Your task to perform on an android device: Open the phone app and click the voicemail tab. Image 0: 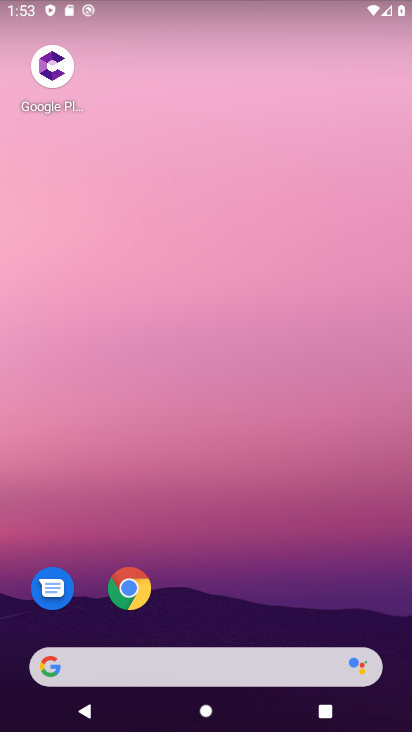
Step 0: drag from (176, 540) to (170, 1)
Your task to perform on an android device: Open the phone app and click the voicemail tab. Image 1: 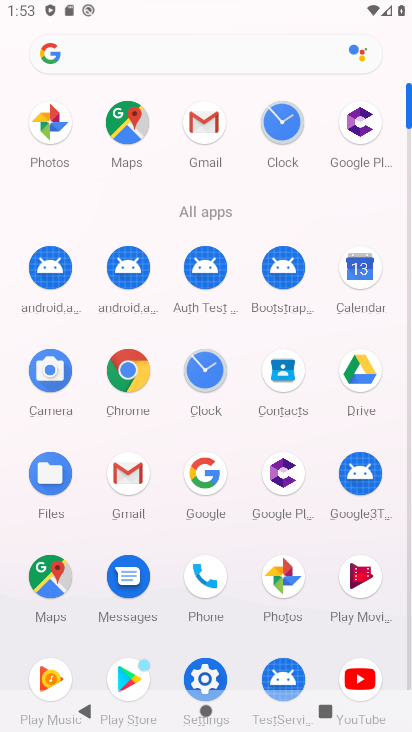
Step 1: click (196, 577)
Your task to perform on an android device: Open the phone app and click the voicemail tab. Image 2: 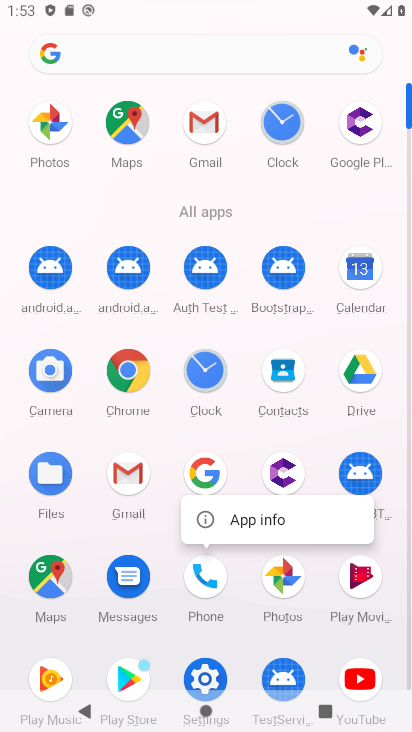
Step 2: click (246, 524)
Your task to perform on an android device: Open the phone app and click the voicemail tab. Image 3: 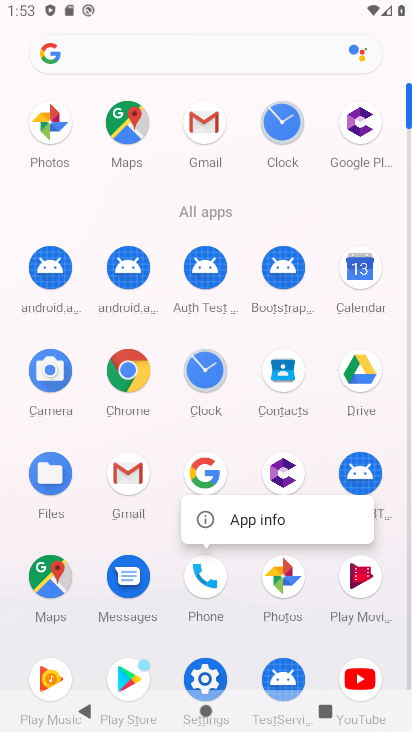
Step 3: click (246, 524)
Your task to perform on an android device: Open the phone app and click the voicemail tab. Image 4: 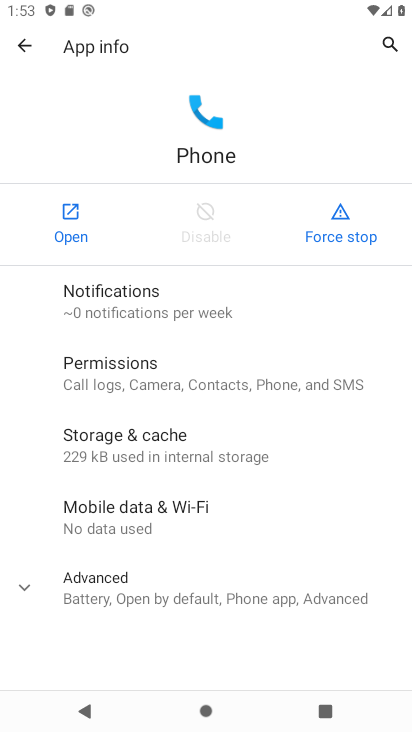
Step 4: click (76, 214)
Your task to perform on an android device: Open the phone app and click the voicemail tab. Image 5: 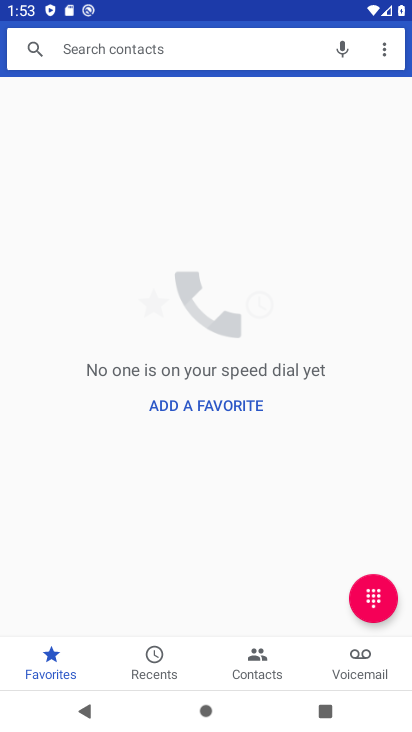
Step 5: click (350, 675)
Your task to perform on an android device: Open the phone app and click the voicemail tab. Image 6: 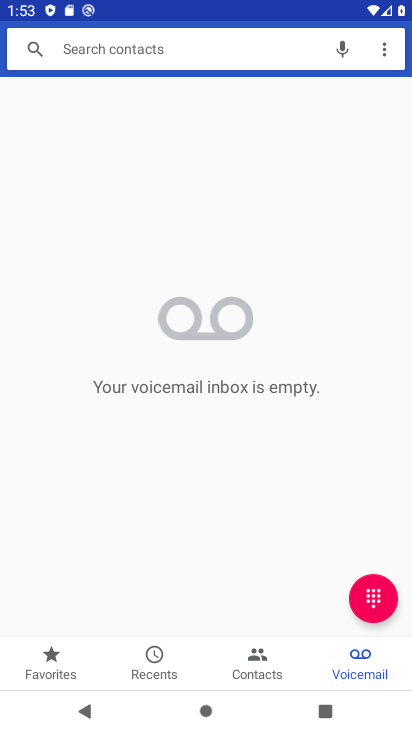
Step 6: click (360, 660)
Your task to perform on an android device: Open the phone app and click the voicemail tab. Image 7: 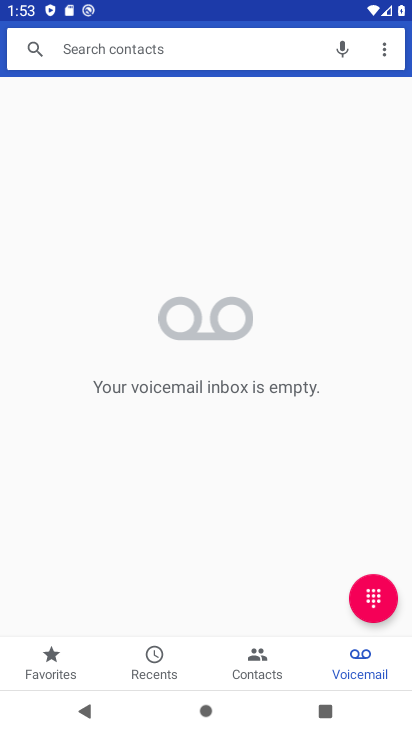
Step 7: task complete